Your task to perform on an android device: Go to Google maps Image 0: 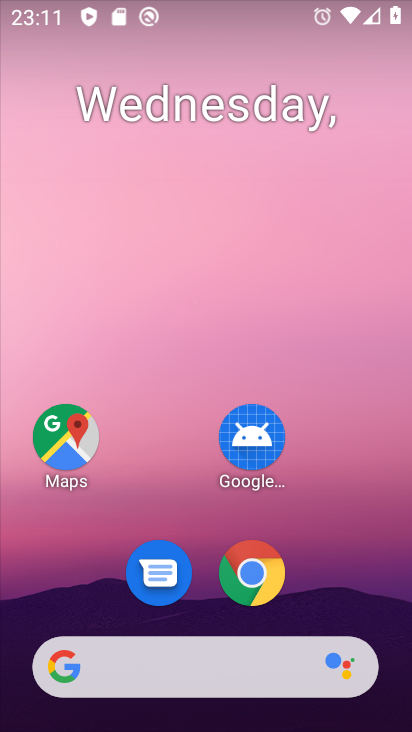
Step 0: click (65, 438)
Your task to perform on an android device: Go to Google maps Image 1: 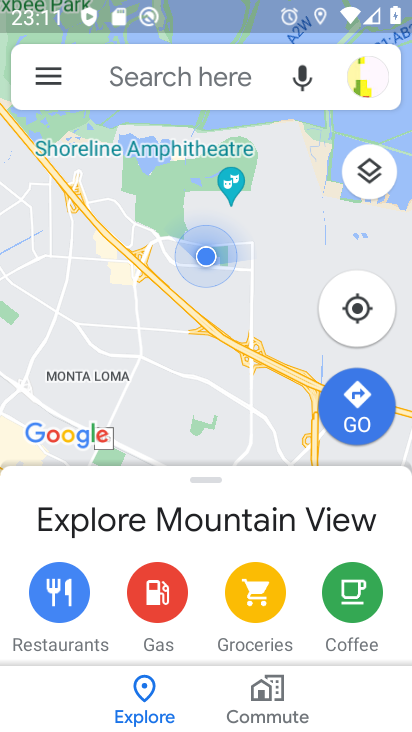
Step 1: task complete